Your task to perform on an android device: Open calendar and show me the third week of next month Image 0: 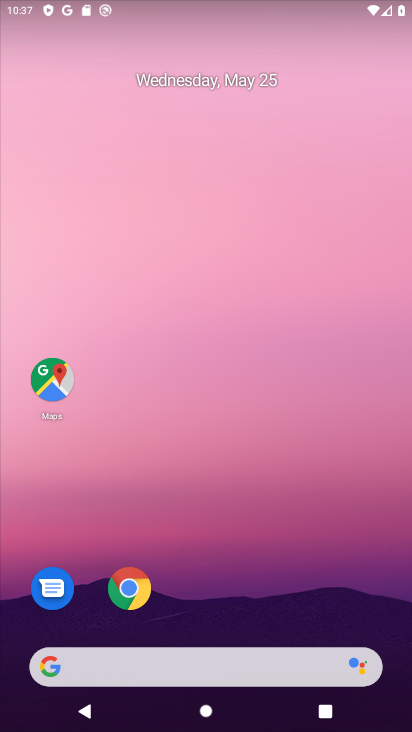
Step 0: drag from (268, 572) to (180, 131)
Your task to perform on an android device: Open calendar and show me the third week of next month Image 1: 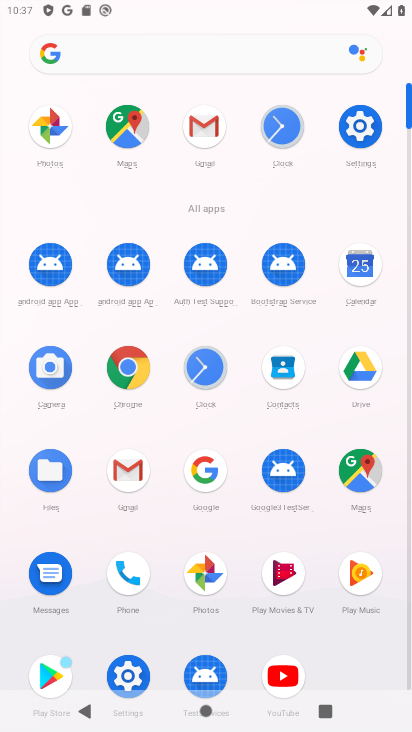
Step 1: click (362, 266)
Your task to perform on an android device: Open calendar and show me the third week of next month Image 2: 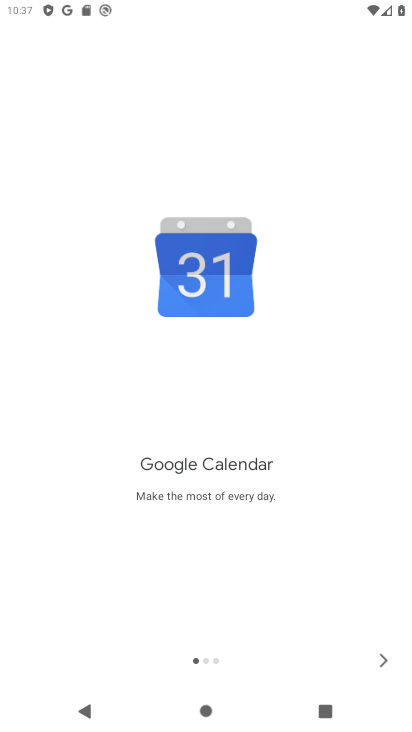
Step 2: click (381, 659)
Your task to perform on an android device: Open calendar and show me the third week of next month Image 3: 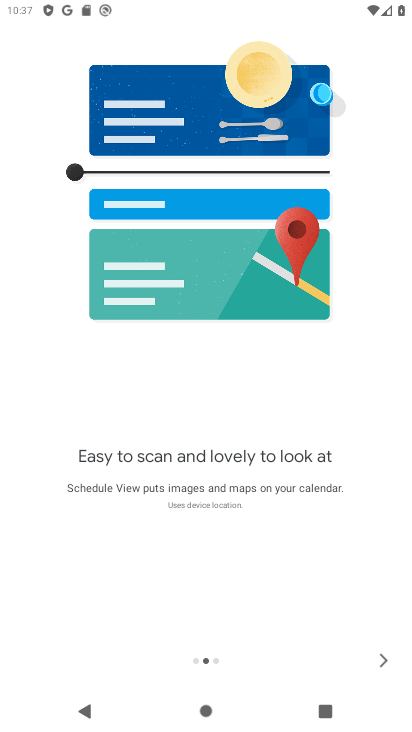
Step 3: click (388, 659)
Your task to perform on an android device: Open calendar and show me the third week of next month Image 4: 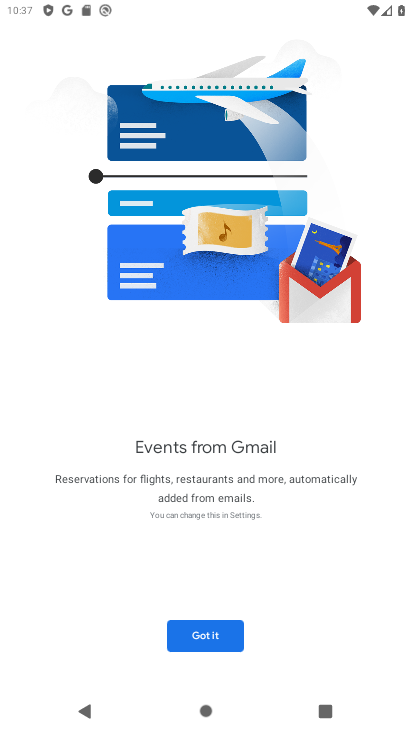
Step 4: click (206, 639)
Your task to perform on an android device: Open calendar and show me the third week of next month Image 5: 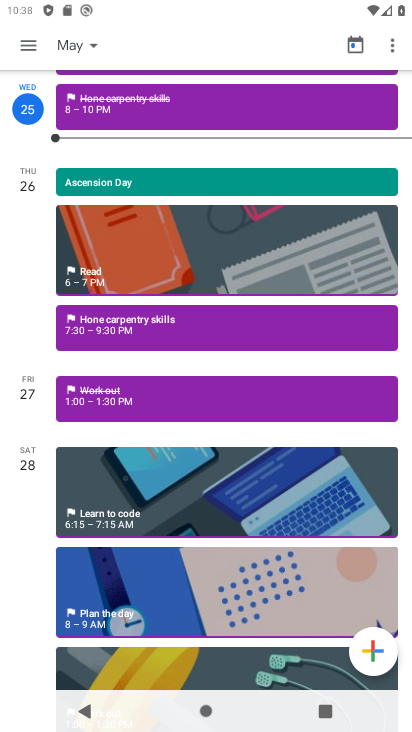
Step 5: click (361, 45)
Your task to perform on an android device: Open calendar and show me the third week of next month Image 6: 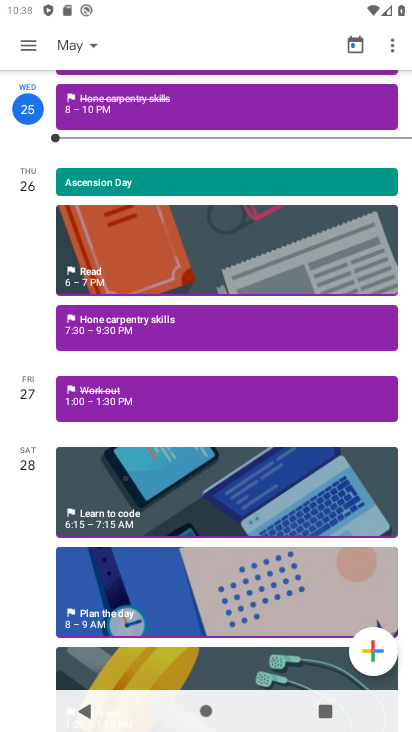
Step 6: click (89, 43)
Your task to perform on an android device: Open calendar and show me the third week of next month Image 7: 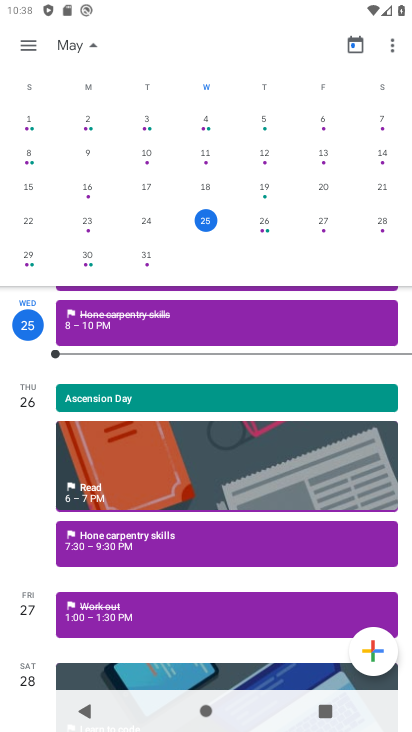
Step 7: drag from (350, 215) to (22, 229)
Your task to perform on an android device: Open calendar and show me the third week of next month Image 8: 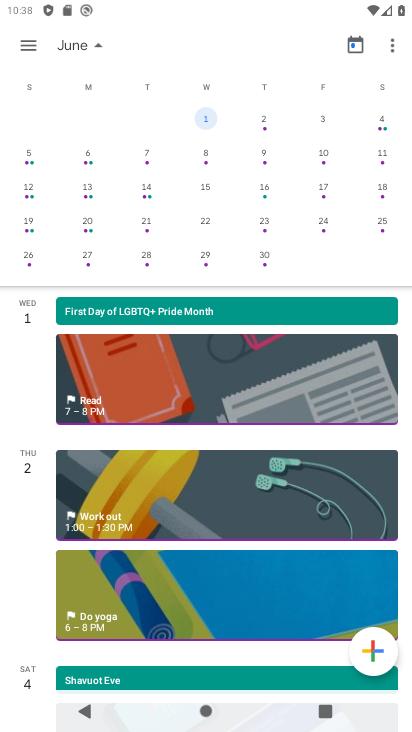
Step 8: click (91, 223)
Your task to perform on an android device: Open calendar and show me the third week of next month Image 9: 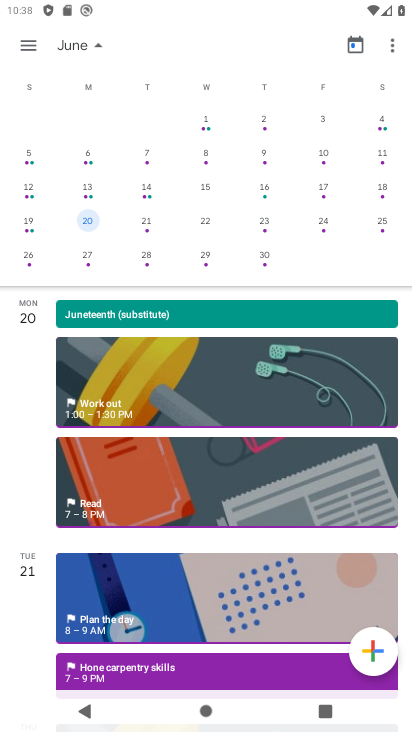
Step 9: click (24, 48)
Your task to perform on an android device: Open calendar and show me the third week of next month Image 10: 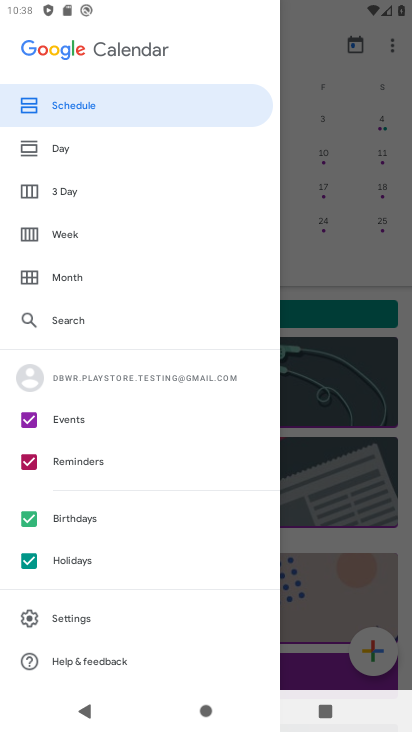
Step 10: click (84, 233)
Your task to perform on an android device: Open calendar and show me the third week of next month Image 11: 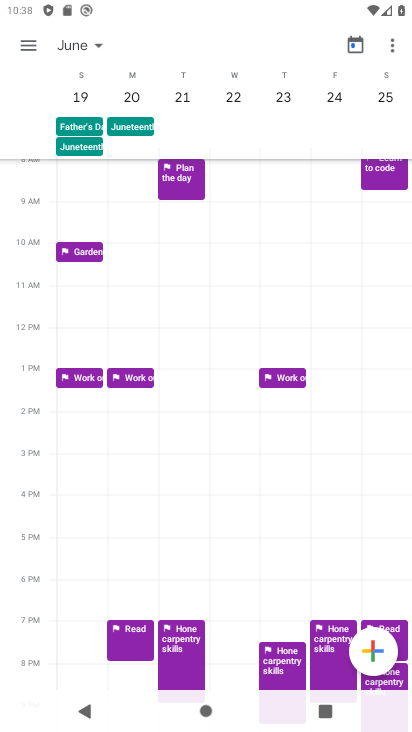
Step 11: task complete